Your task to perform on an android device: Go to battery settings Image 0: 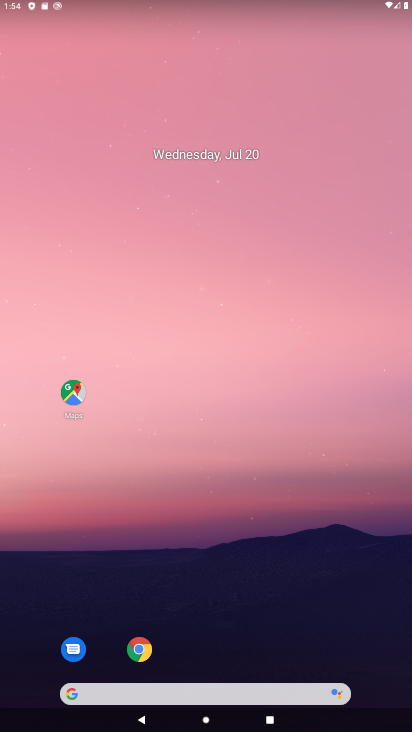
Step 0: drag from (269, 558) to (316, 197)
Your task to perform on an android device: Go to battery settings Image 1: 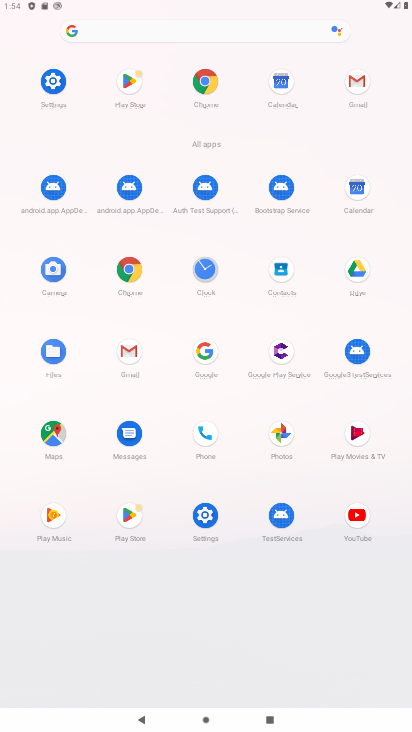
Step 1: click (210, 520)
Your task to perform on an android device: Go to battery settings Image 2: 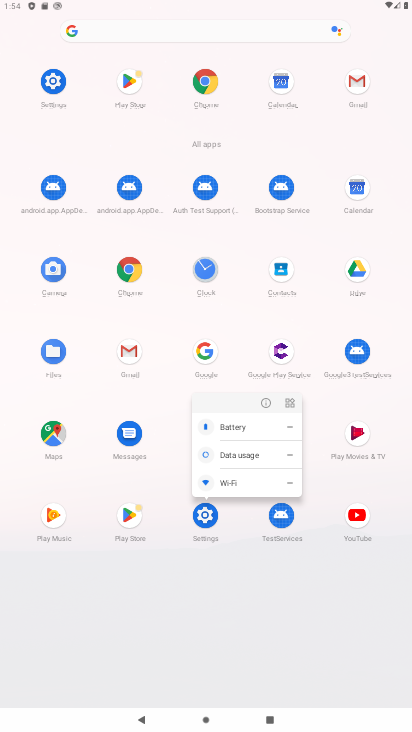
Step 2: click (209, 520)
Your task to perform on an android device: Go to battery settings Image 3: 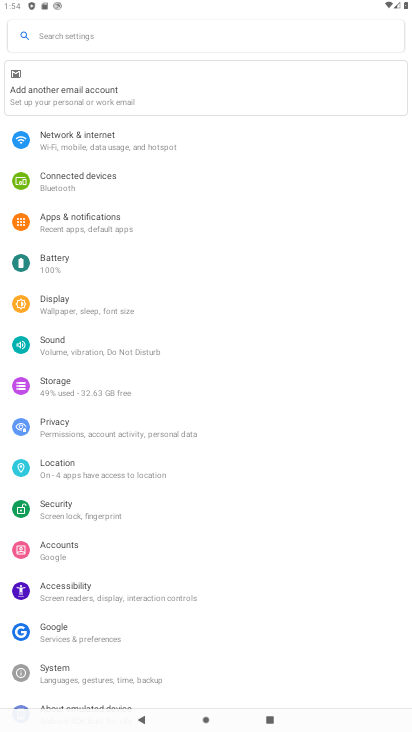
Step 3: click (64, 265)
Your task to perform on an android device: Go to battery settings Image 4: 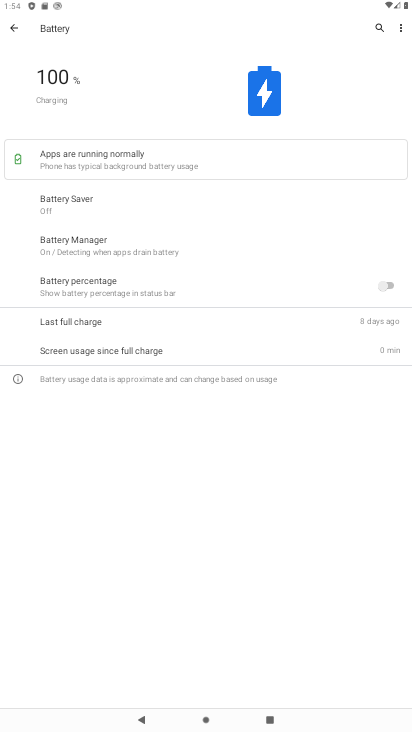
Step 4: task complete